Your task to perform on an android device: Open location settings Image 0: 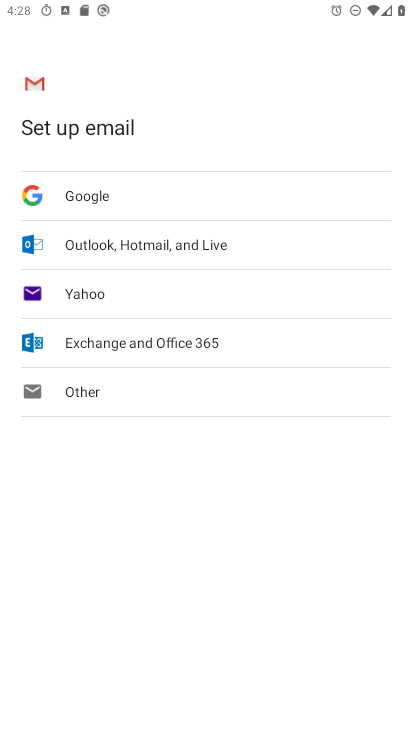
Step 0: press home button
Your task to perform on an android device: Open location settings Image 1: 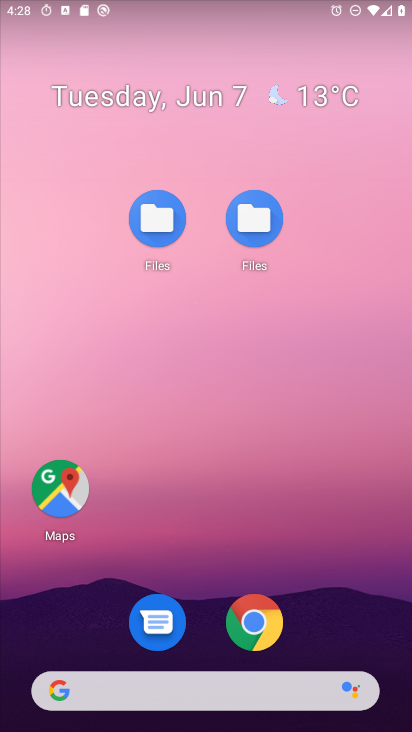
Step 1: drag from (336, 600) to (328, 212)
Your task to perform on an android device: Open location settings Image 2: 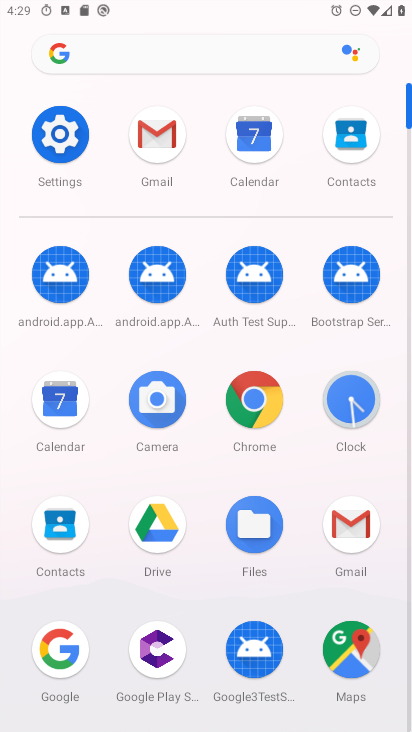
Step 2: click (54, 132)
Your task to perform on an android device: Open location settings Image 3: 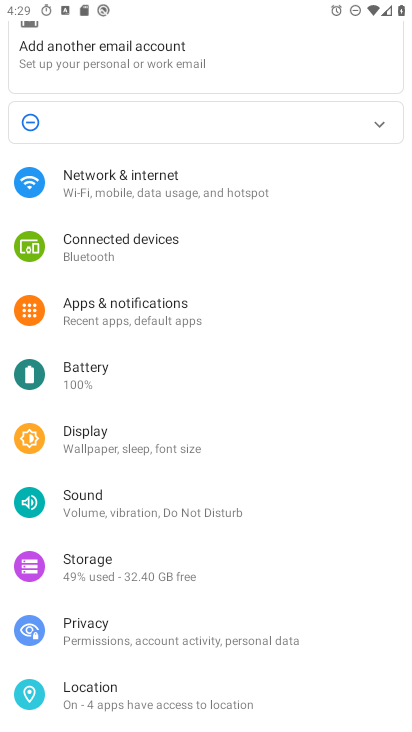
Step 3: click (124, 678)
Your task to perform on an android device: Open location settings Image 4: 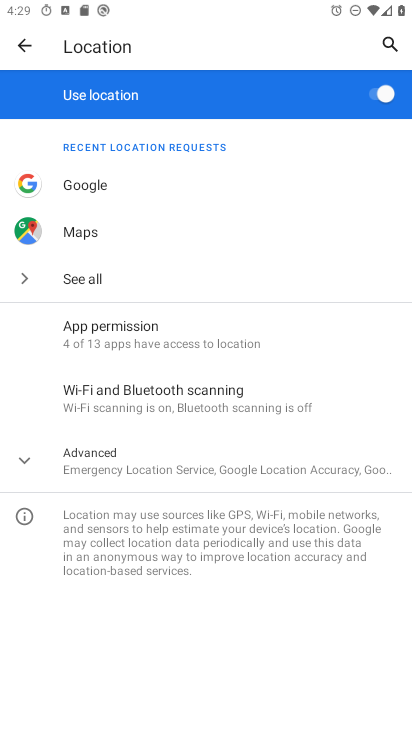
Step 4: task complete